Your task to perform on an android device: check data usage Image 0: 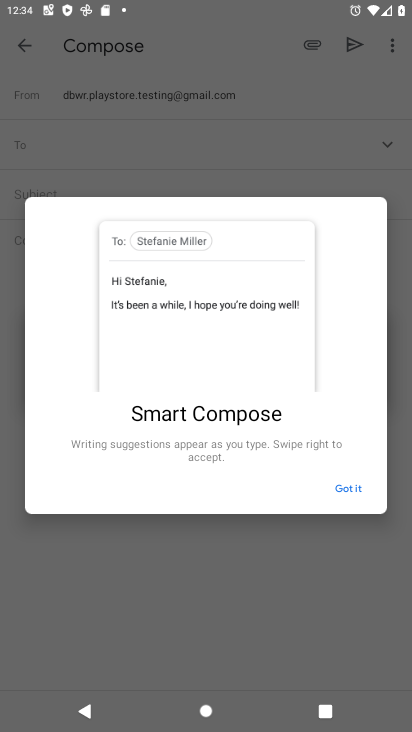
Step 0: press home button
Your task to perform on an android device: check data usage Image 1: 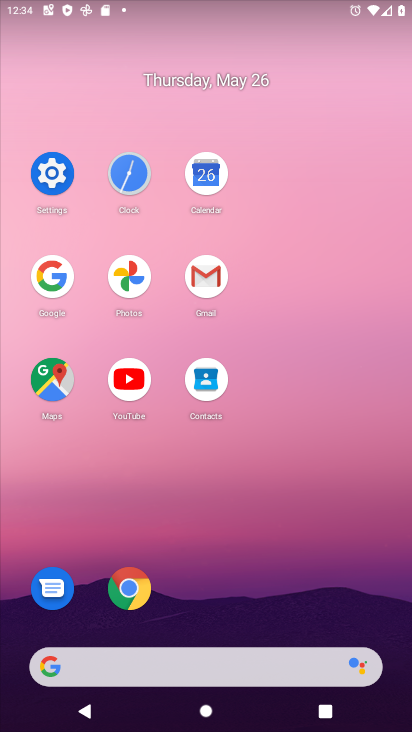
Step 1: click (40, 171)
Your task to perform on an android device: check data usage Image 2: 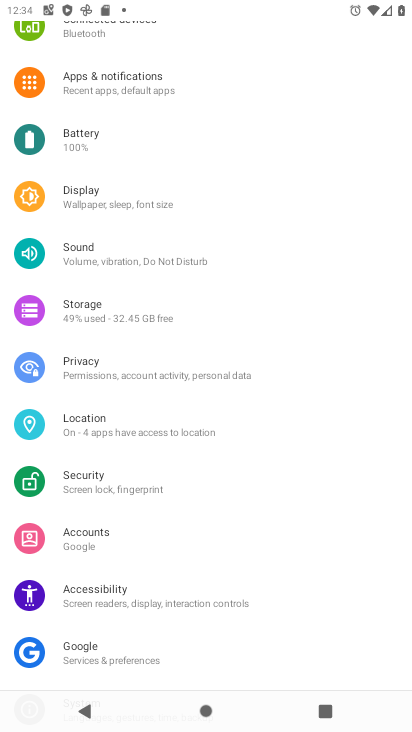
Step 2: drag from (210, 297) to (201, 604)
Your task to perform on an android device: check data usage Image 3: 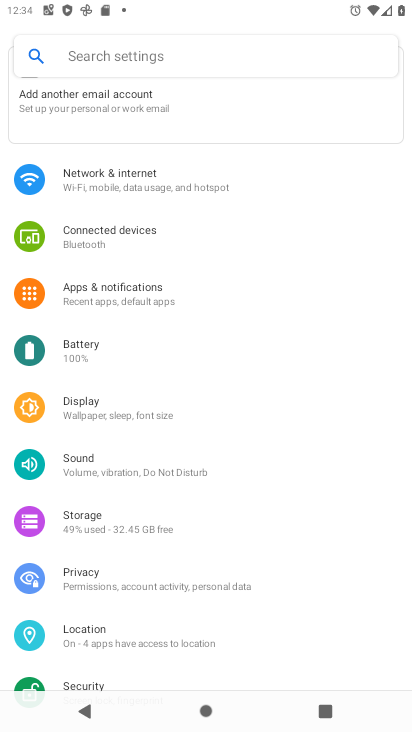
Step 3: click (257, 184)
Your task to perform on an android device: check data usage Image 4: 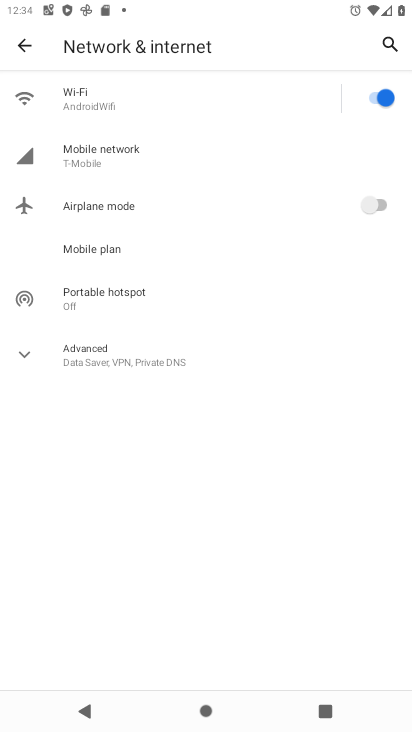
Step 4: click (223, 154)
Your task to perform on an android device: check data usage Image 5: 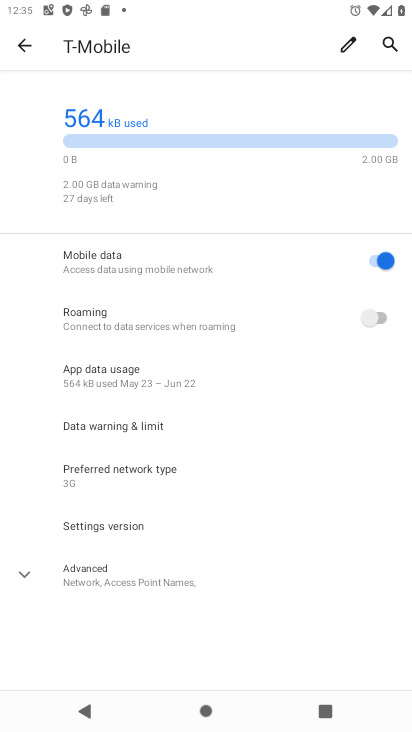
Step 5: task complete